Your task to perform on an android device: set default search engine in the chrome app Image 0: 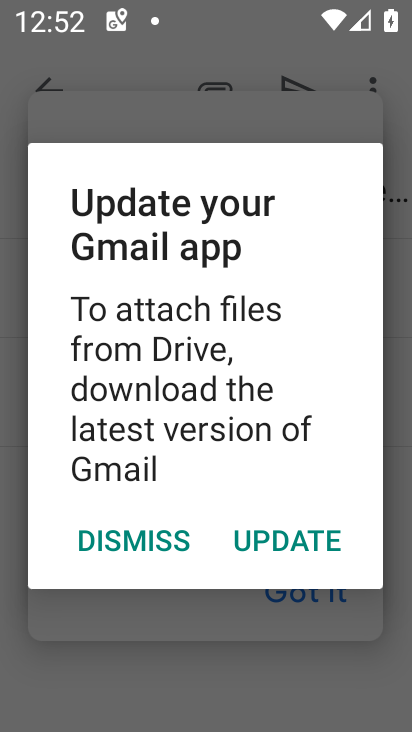
Step 0: press back button
Your task to perform on an android device: set default search engine in the chrome app Image 1: 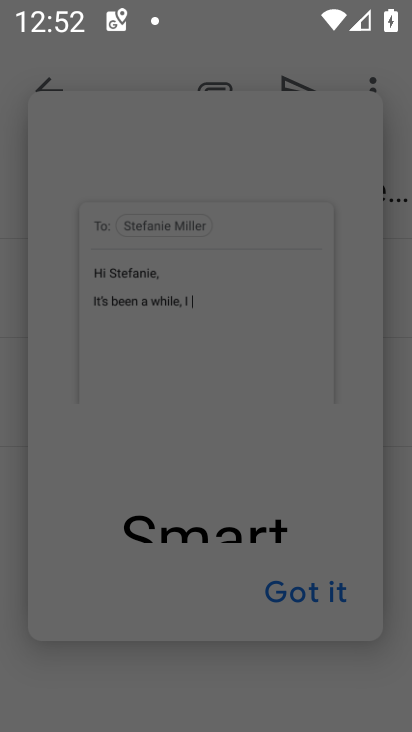
Step 1: press back button
Your task to perform on an android device: set default search engine in the chrome app Image 2: 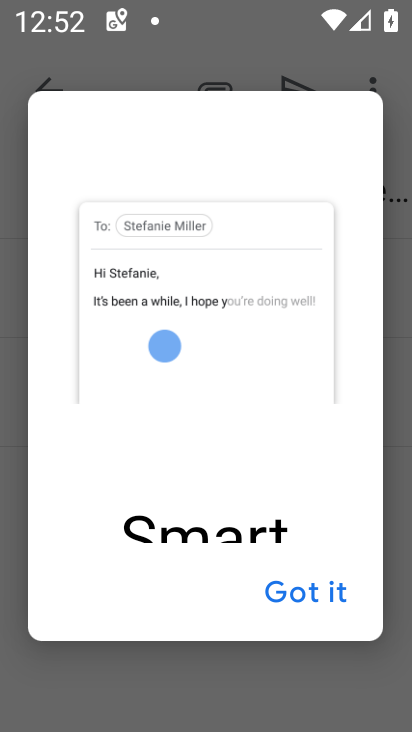
Step 2: press home button
Your task to perform on an android device: set default search engine in the chrome app Image 3: 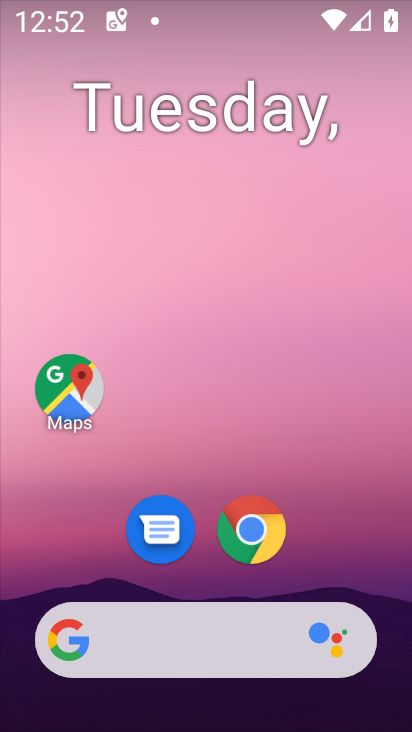
Step 3: click (255, 525)
Your task to perform on an android device: set default search engine in the chrome app Image 4: 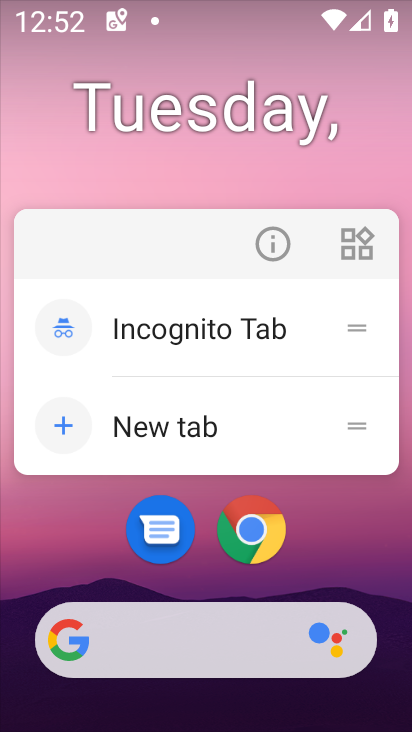
Step 4: click (250, 525)
Your task to perform on an android device: set default search engine in the chrome app Image 5: 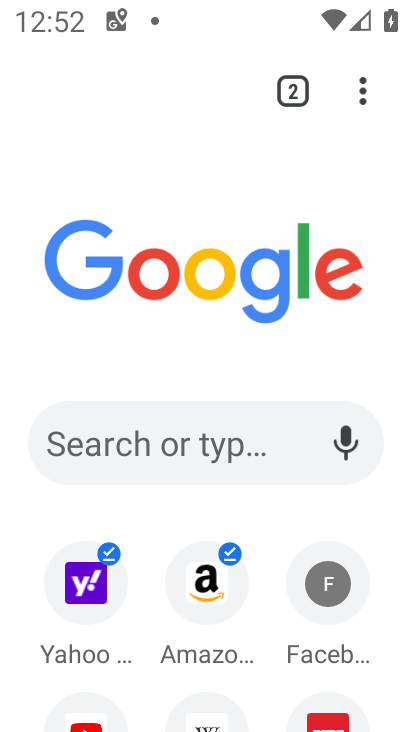
Step 5: drag from (357, 91) to (111, 564)
Your task to perform on an android device: set default search engine in the chrome app Image 6: 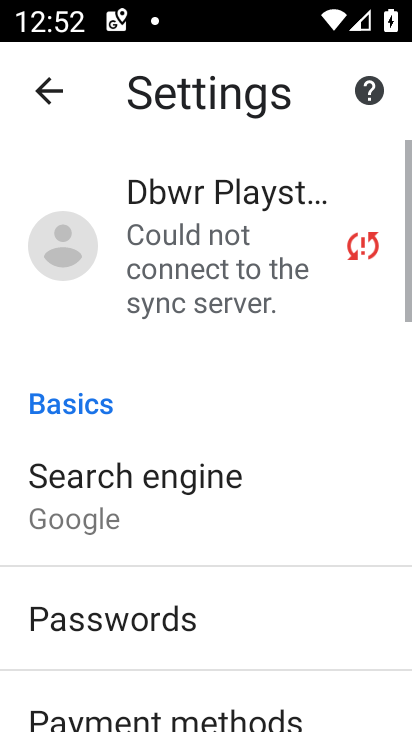
Step 6: click (142, 491)
Your task to perform on an android device: set default search engine in the chrome app Image 7: 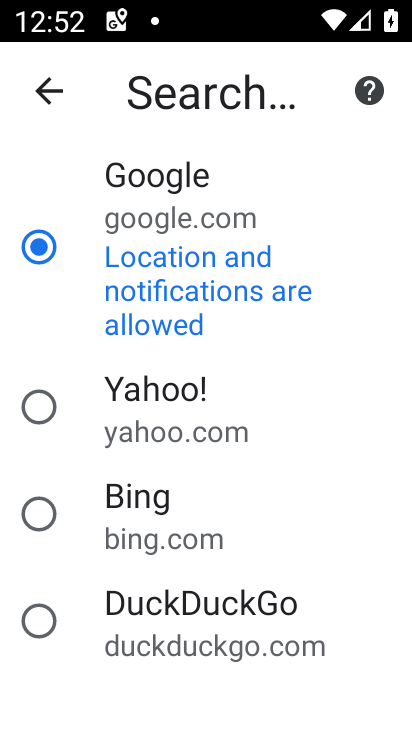
Step 7: click (26, 388)
Your task to perform on an android device: set default search engine in the chrome app Image 8: 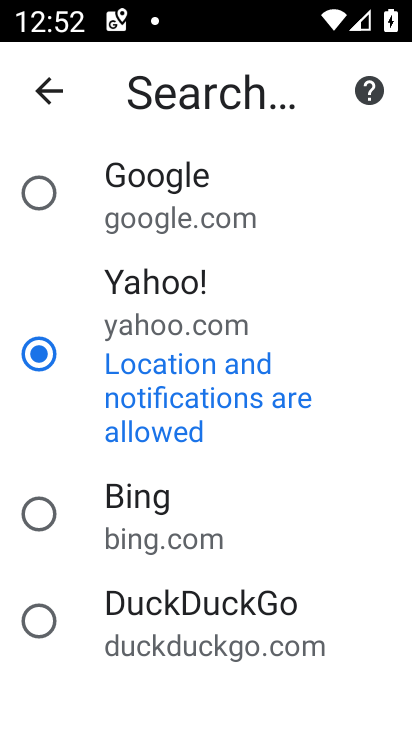
Step 8: task complete